Your task to perform on an android device: Show me popular videos on Youtube Image 0: 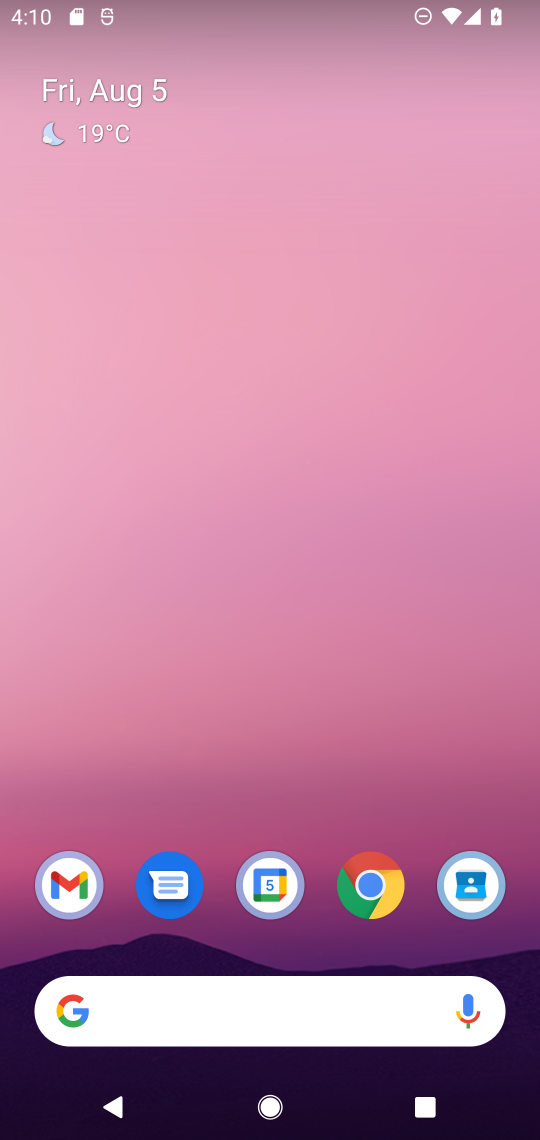
Step 0: drag from (299, 884) to (229, 218)
Your task to perform on an android device: Show me popular videos on Youtube Image 1: 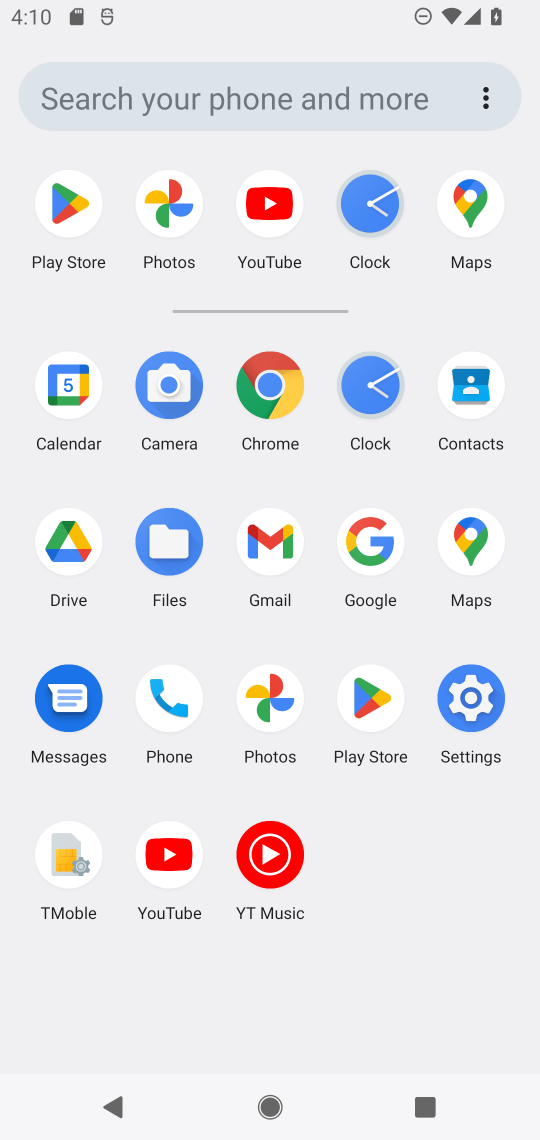
Step 1: click (178, 857)
Your task to perform on an android device: Show me popular videos on Youtube Image 2: 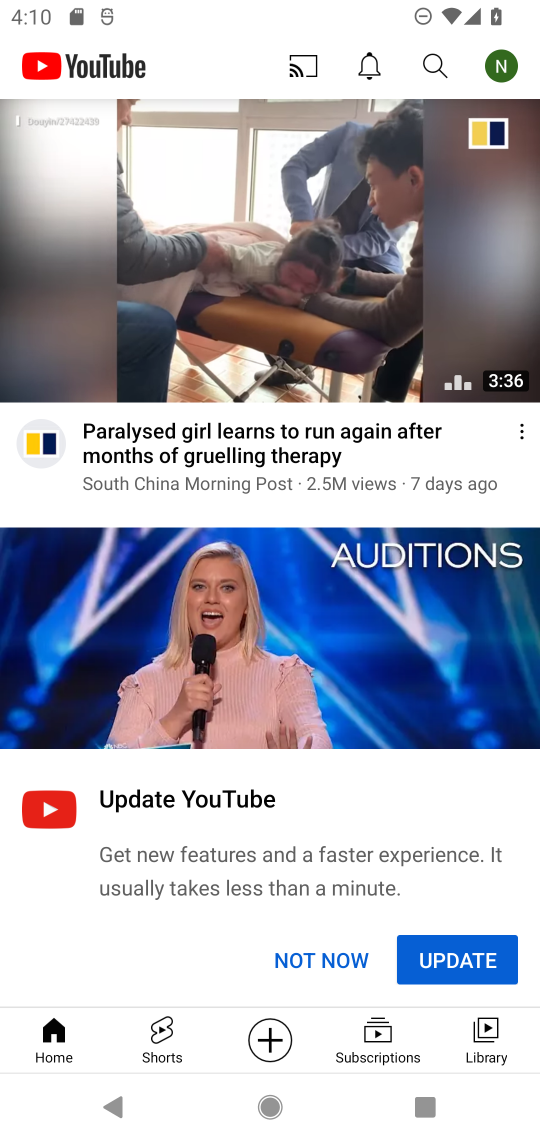
Step 2: click (428, 61)
Your task to perform on an android device: Show me popular videos on Youtube Image 3: 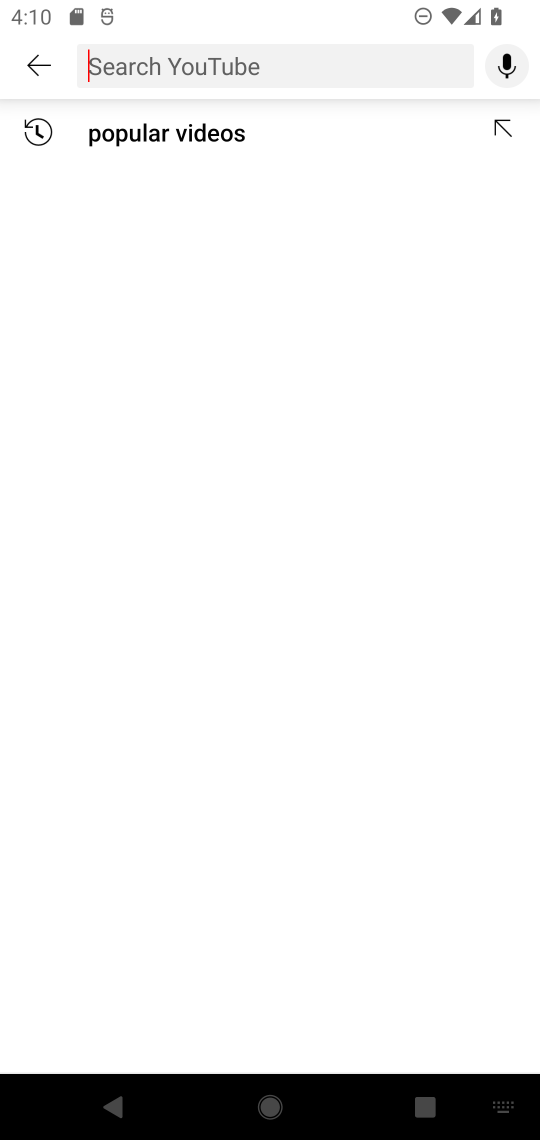
Step 3: type "Popular videos "
Your task to perform on an android device: Show me popular videos on Youtube Image 4: 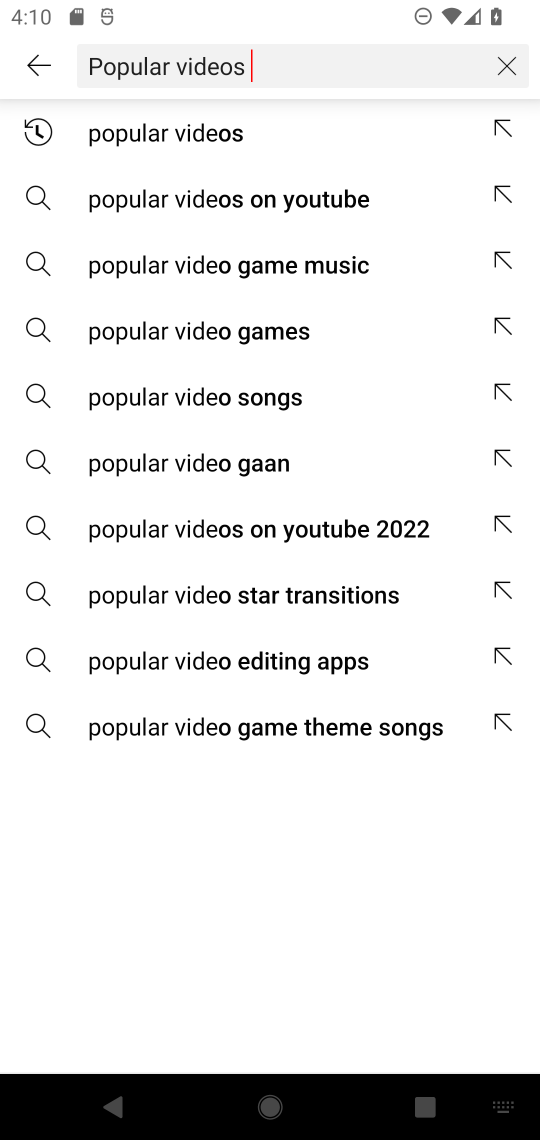
Step 4: type ""
Your task to perform on an android device: Show me popular videos on Youtube Image 5: 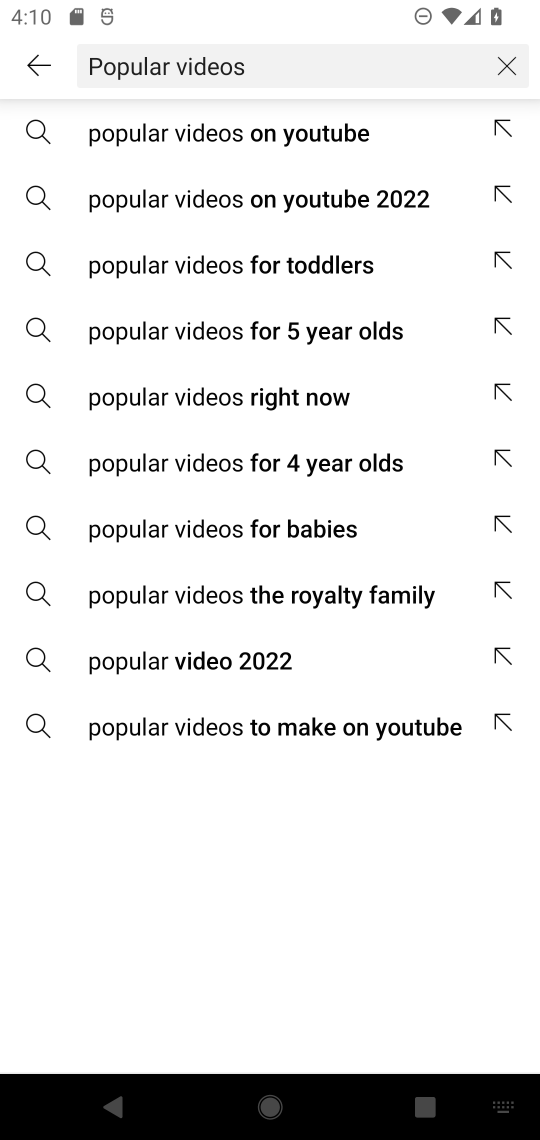
Step 5: click (197, 136)
Your task to perform on an android device: Show me popular videos on Youtube Image 6: 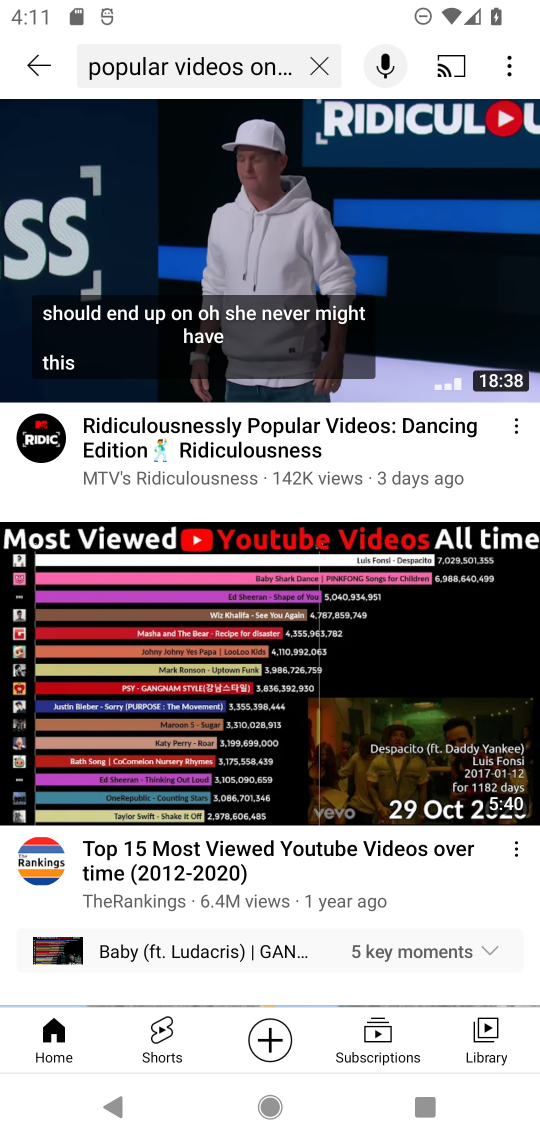
Step 6: task complete